Your task to perform on an android device: Go to calendar. Show me events next week Image 0: 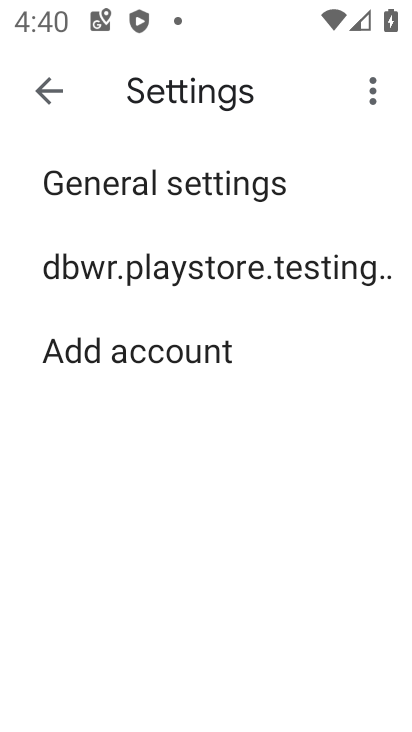
Step 0: press home button
Your task to perform on an android device: Go to calendar. Show me events next week Image 1: 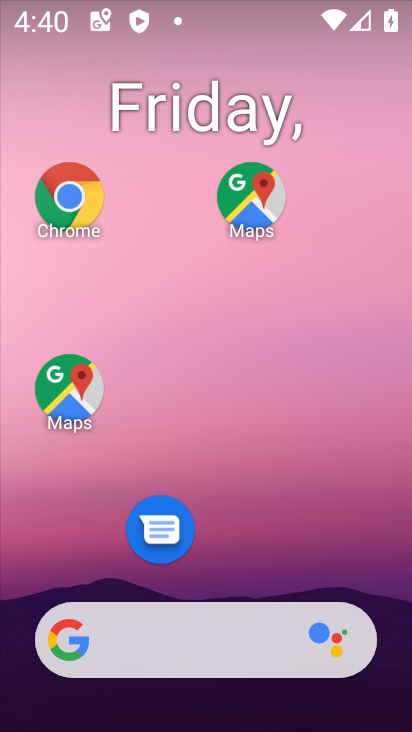
Step 1: drag from (270, 553) to (292, 235)
Your task to perform on an android device: Go to calendar. Show me events next week Image 2: 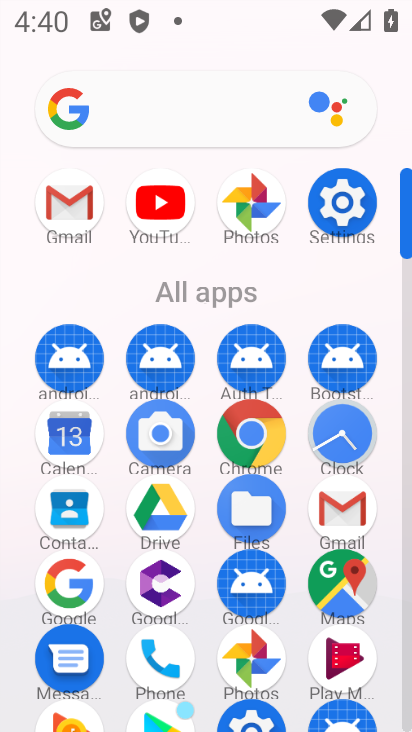
Step 2: click (88, 443)
Your task to perform on an android device: Go to calendar. Show me events next week Image 3: 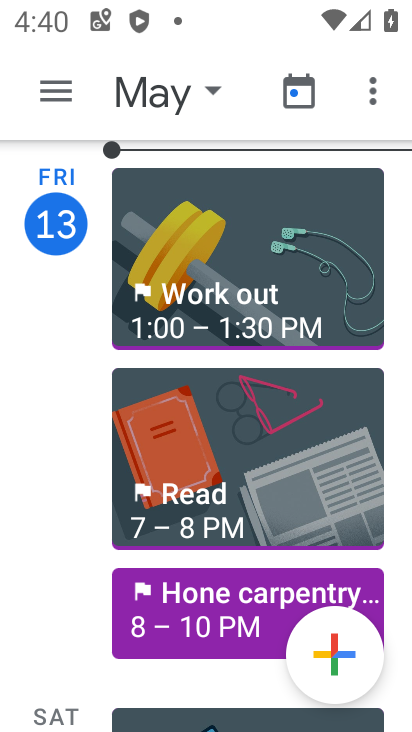
Step 3: click (165, 92)
Your task to perform on an android device: Go to calendar. Show me events next week Image 4: 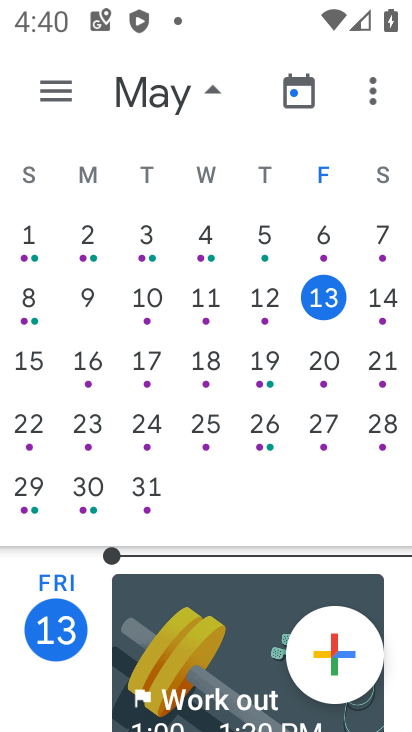
Step 4: click (69, 99)
Your task to perform on an android device: Go to calendar. Show me events next week Image 5: 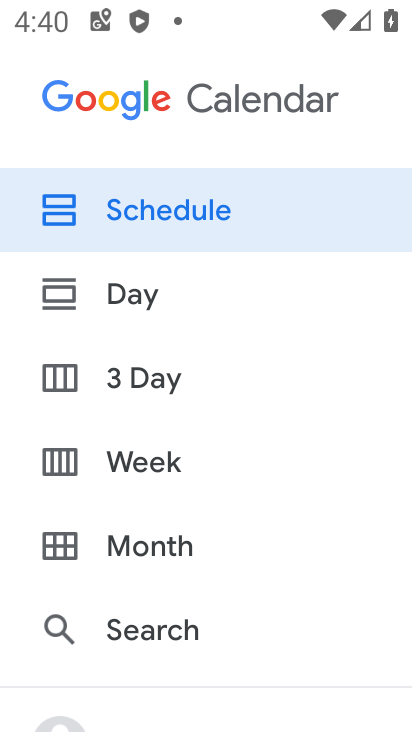
Step 5: click (158, 472)
Your task to perform on an android device: Go to calendar. Show me events next week Image 6: 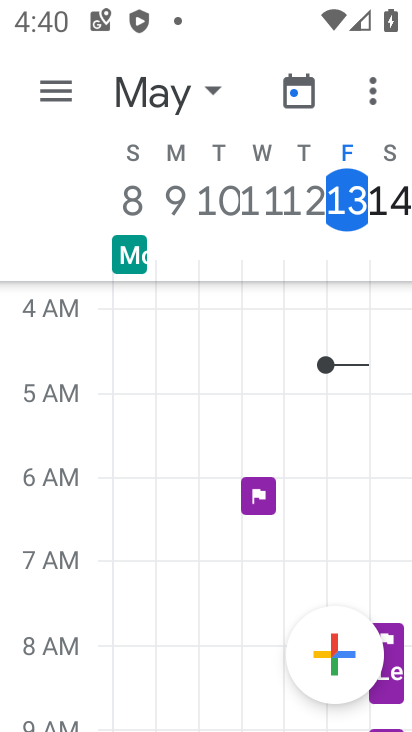
Step 6: click (165, 106)
Your task to perform on an android device: Go to calendar. Show me events next week Image 7: 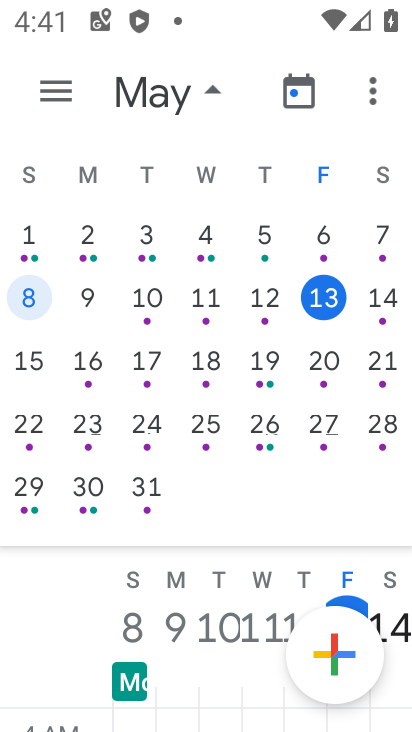
Step 7: click (27, 364)
Your task to perform on an android device: Go to calendar. Show me events next week Image 8: 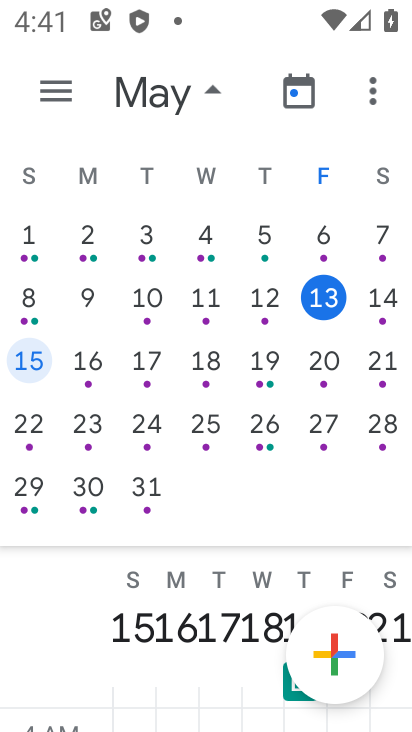
Step 8: task complete